Your task to perform on an android device: toggle notifications settings in the gmail app Image 0: 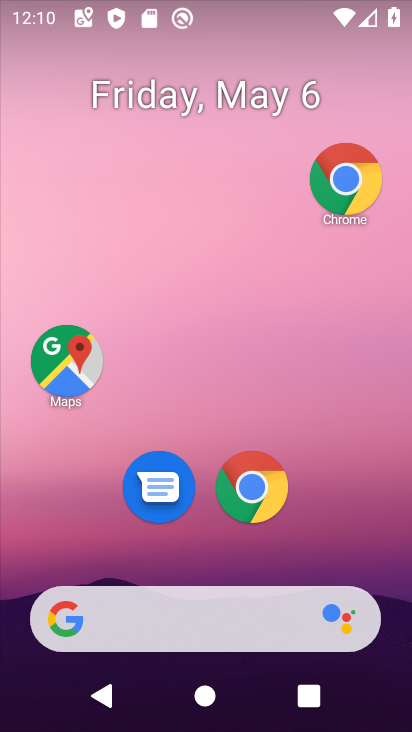
Step 0: drag from (318, 497) to (283, 242)
Your task to perform on an android device: toggle notifications settings in the gmail app Image 1: 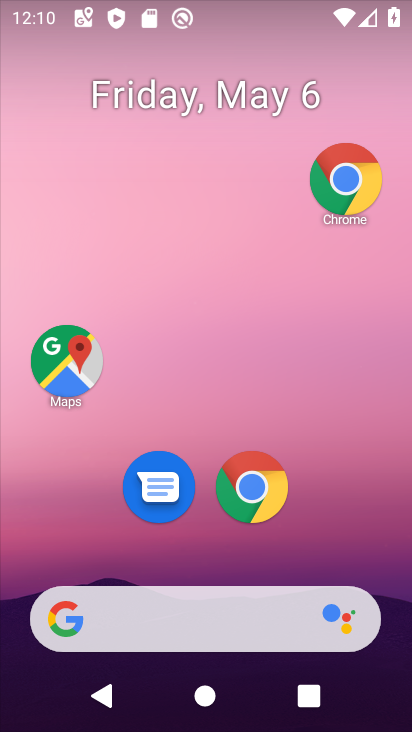
Step 1: drag from (307, 547) to (285, 166)
Your task to perform on an android device: toggle notifications settings in the gmail app Image 2: 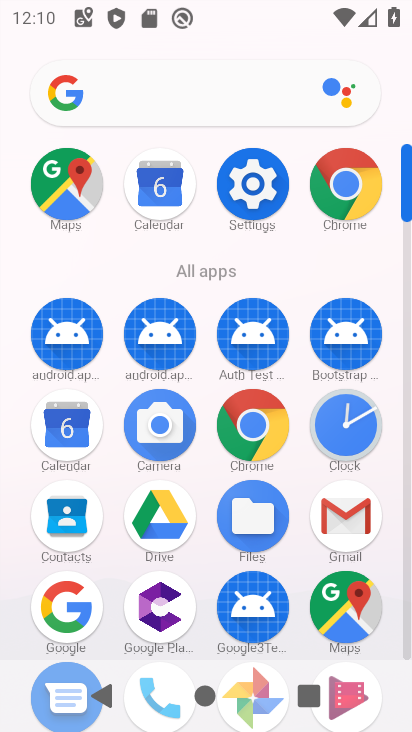
Step 2: click (335, 523)
Your task to perform on an android device: toggle notifications settings in the gmail app Image 3: 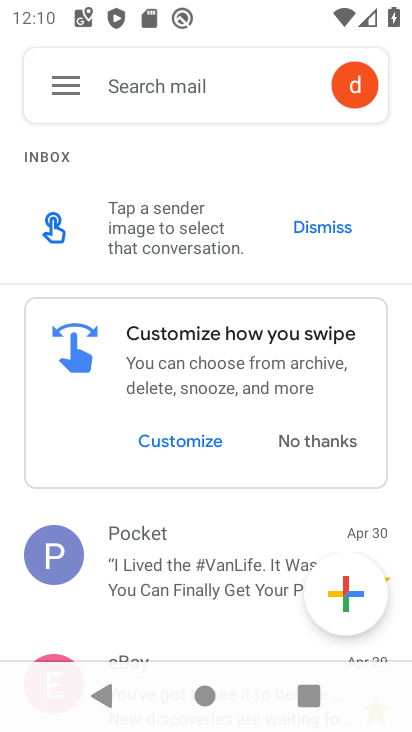
Step 3: click (72, 102)
Your task to perform on an android device: toggle notifications settings in the gmail app Image 4: 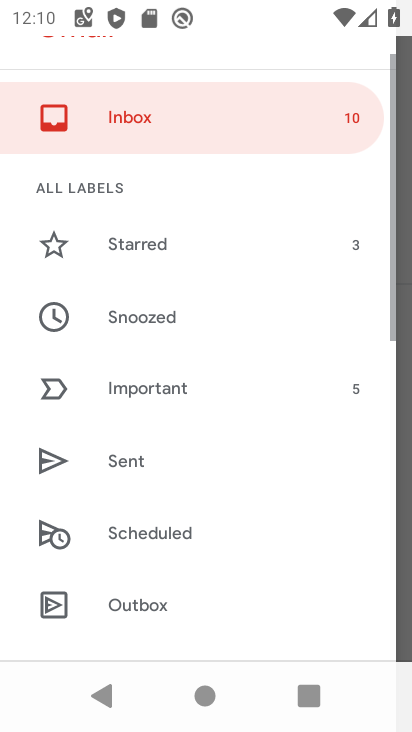
Step 4: drag from (146, 480) to (170, 131)
Your task to perform on an android device: toggle notifications settings in the gmail app Image 5: 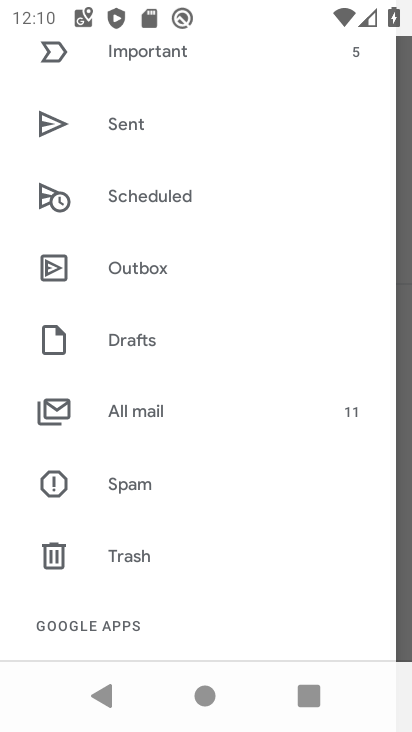
Step 5: drag from (199, 628) to (204, 374)
Your task to perform on an android device: toggle notifications settings in the gmail app Image 6: 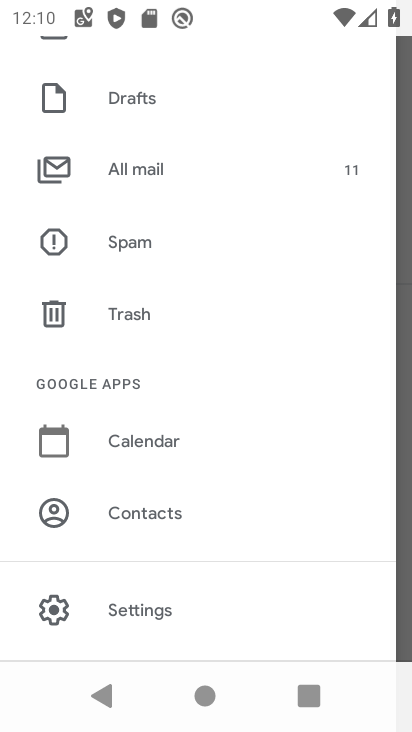
Step 6: click (204, 599)
Your task to perform on an android device: toggle notifications settings in the gmail app Image 7: 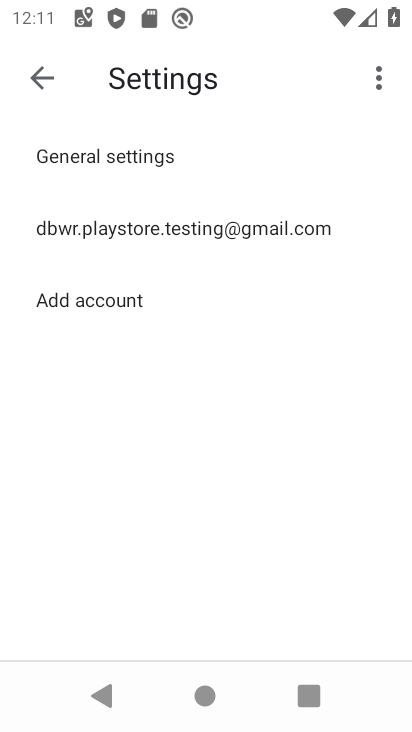
Step 7: click (45, 146)
Your task to perform on an android device: toggle notifications settings in the gmail app Image 8: 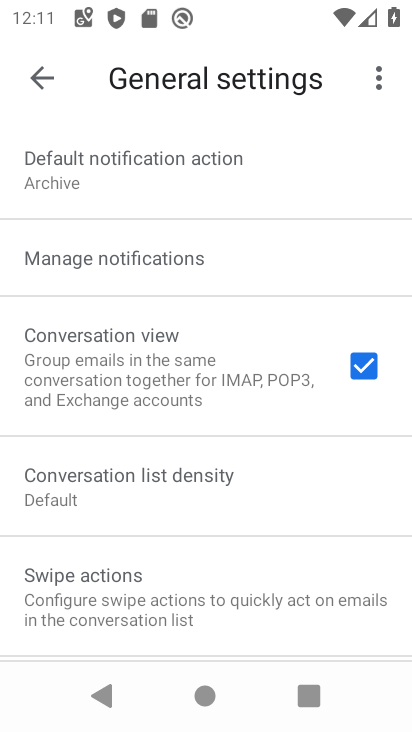
Step 8: click (222, 233)
Your task to perform on an android device: toggle notifications settings in the gmail app Image 9: 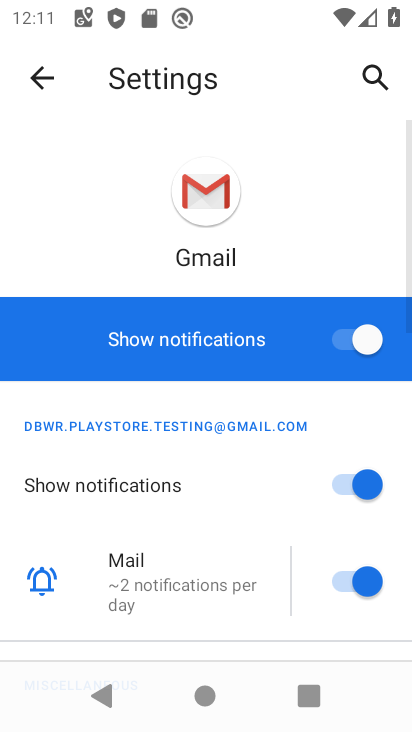
Step 9: click (373, 358)
Your task to perform on an android device: toggle notifications settings in the gmail app Image 10: 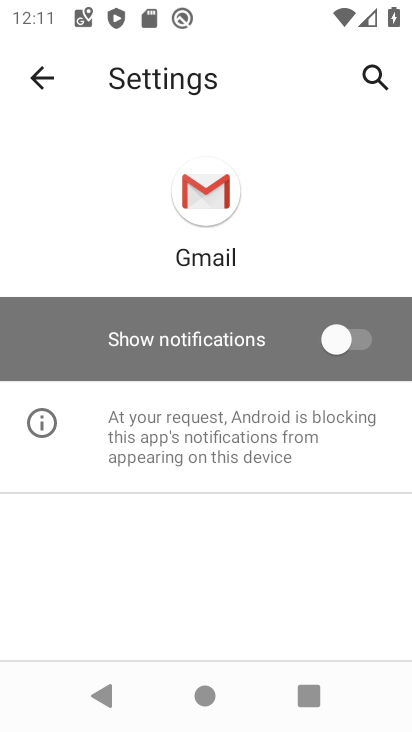
Step 10: task complete